Your task to perform on an android device: Go to sound settings Image 0: 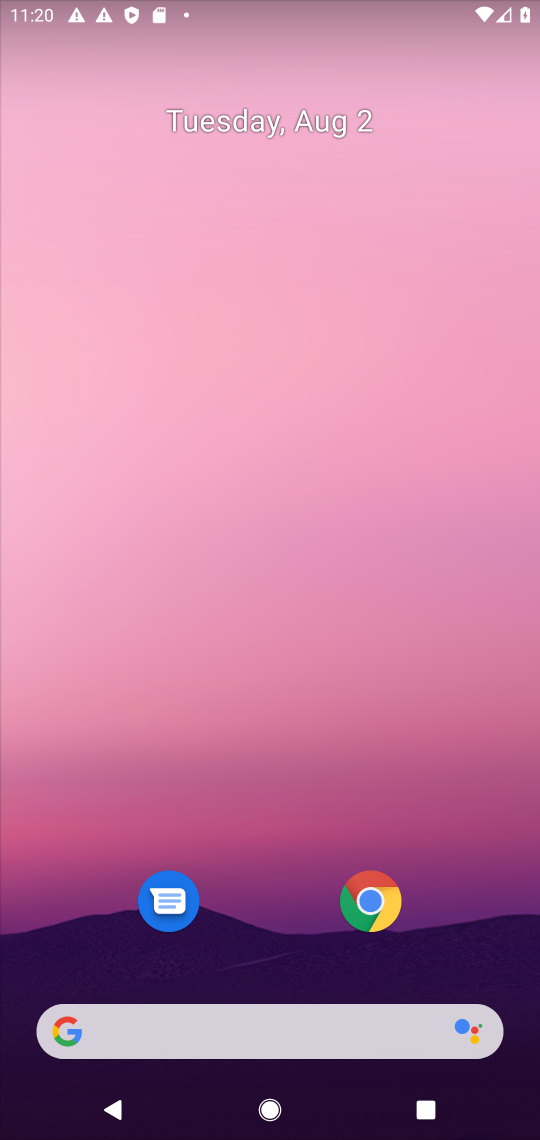
Step 0: drag from (538, 963) to (401, 163)
Your task to perform on an android device: Go to sound settings Image 1: 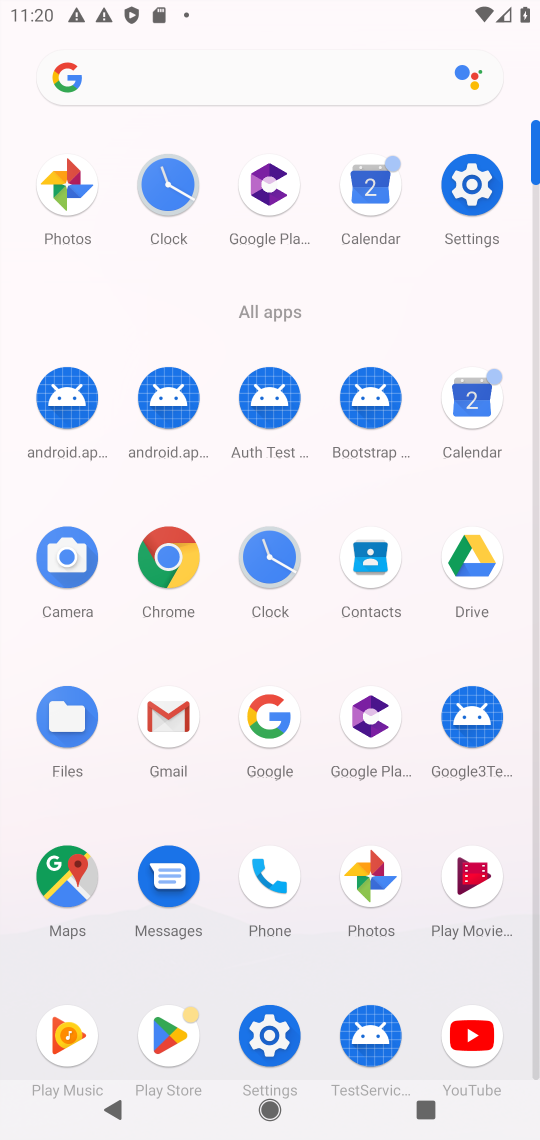
Step 1: click (258, 1041)
Your task to perform on an android device: Go to sound settings Image 2: 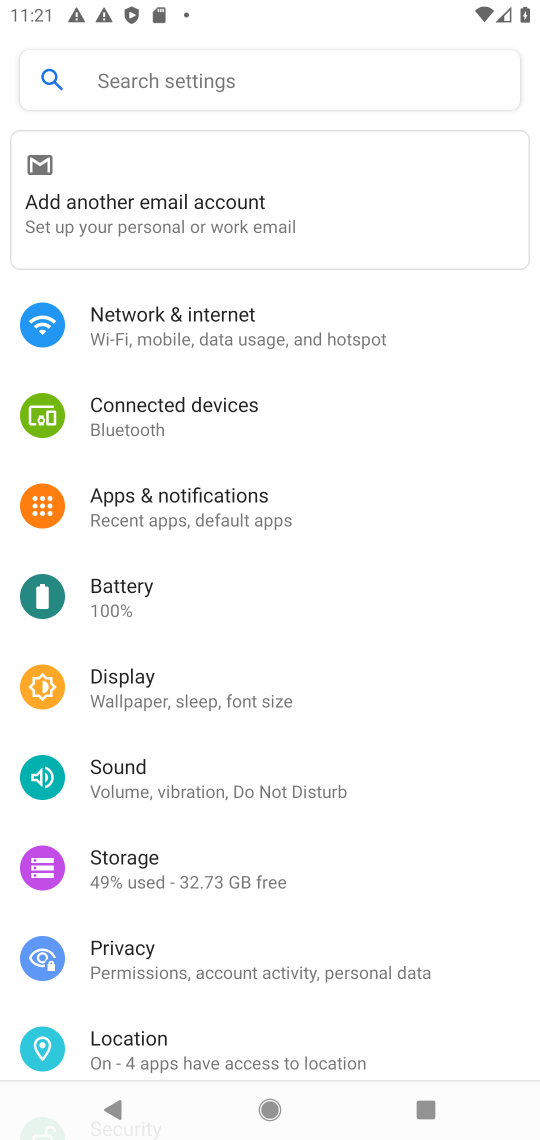
Step 2: click (135, 773)
Your task to perform on an android device: Go to sound settings Image 3: 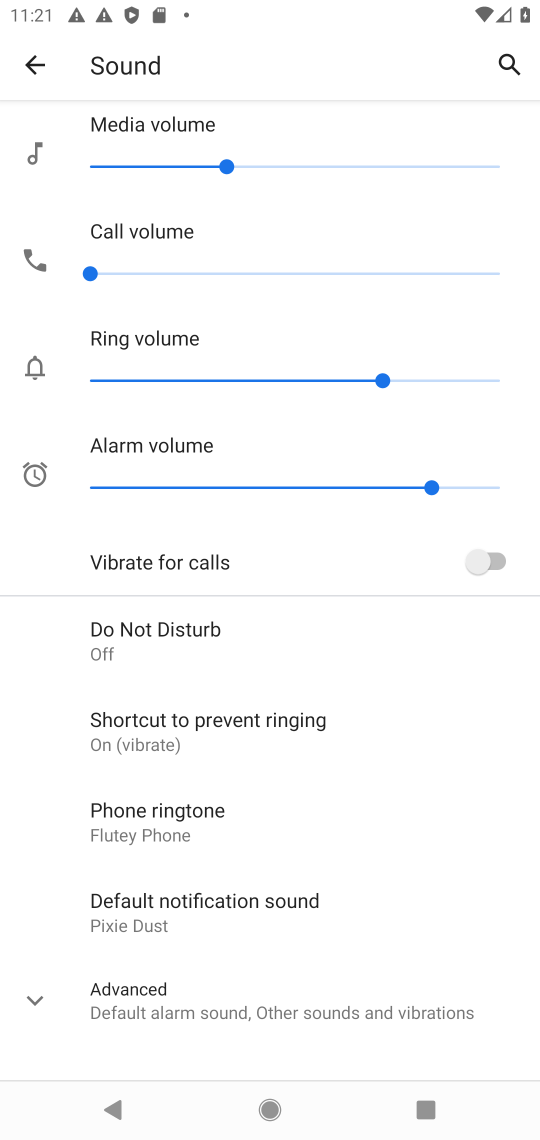
Step 3: click (20, 1003)
Your task to perform on an android device: Go to sound settings Image 4: 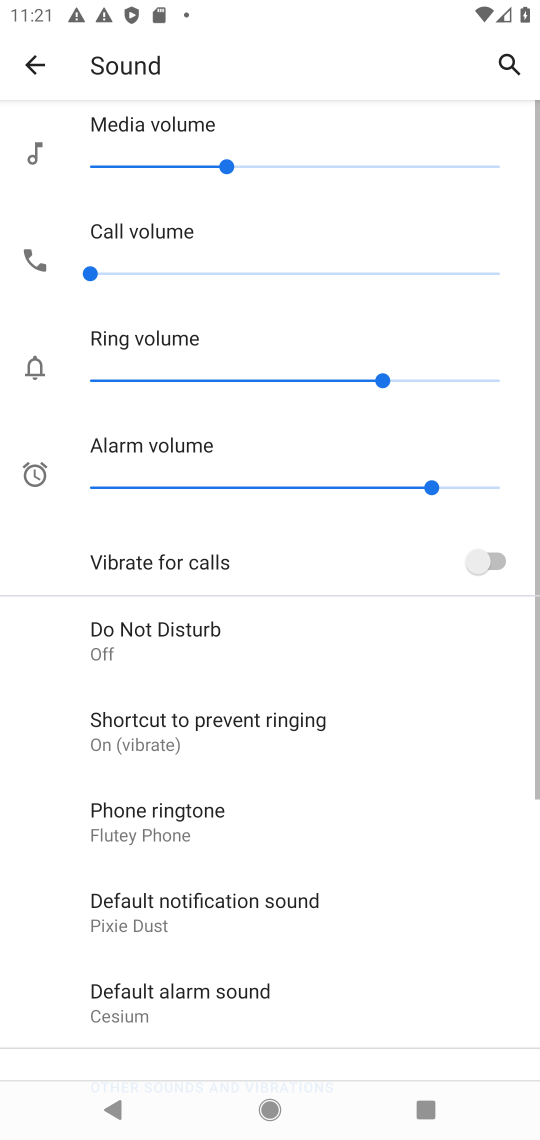
Step 4: task complete